Your task to perform on an android device: Go to sound settings Image 0: 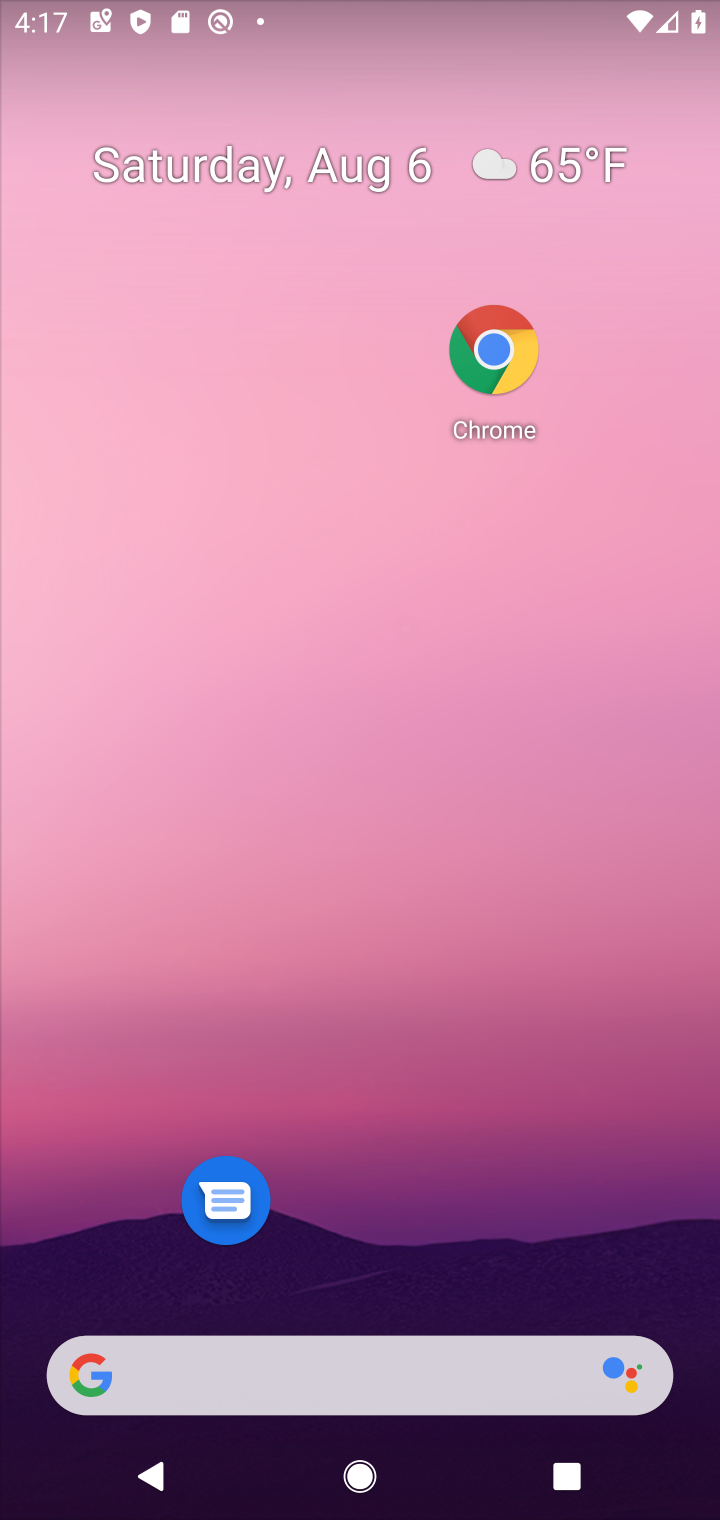
Step 0: drag from (384, 1219) to (381, 248)
Your task to perform on an android device: Go to sound settings Image 1: 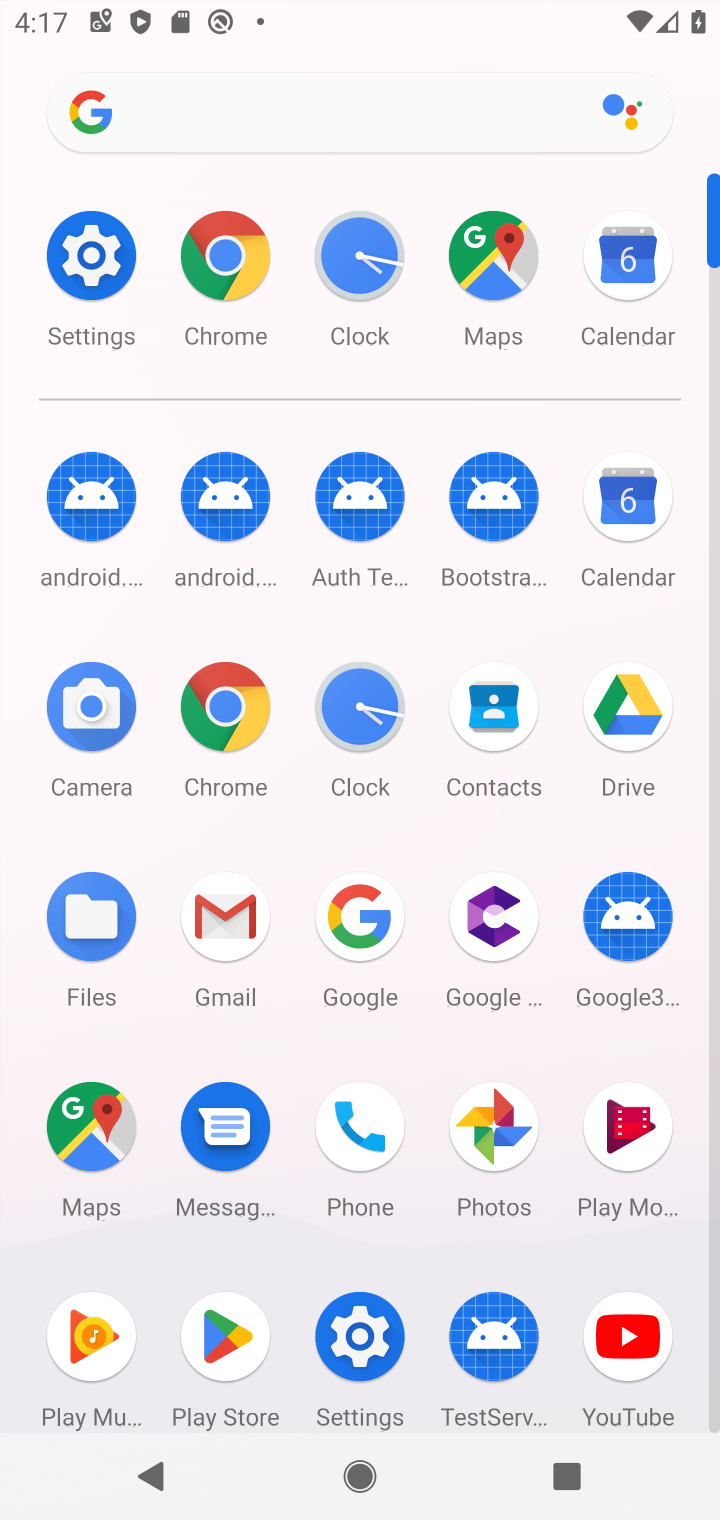
Step 1: click (90, 257)
Your task to perform on an android device: Go to sound settings Image 2: 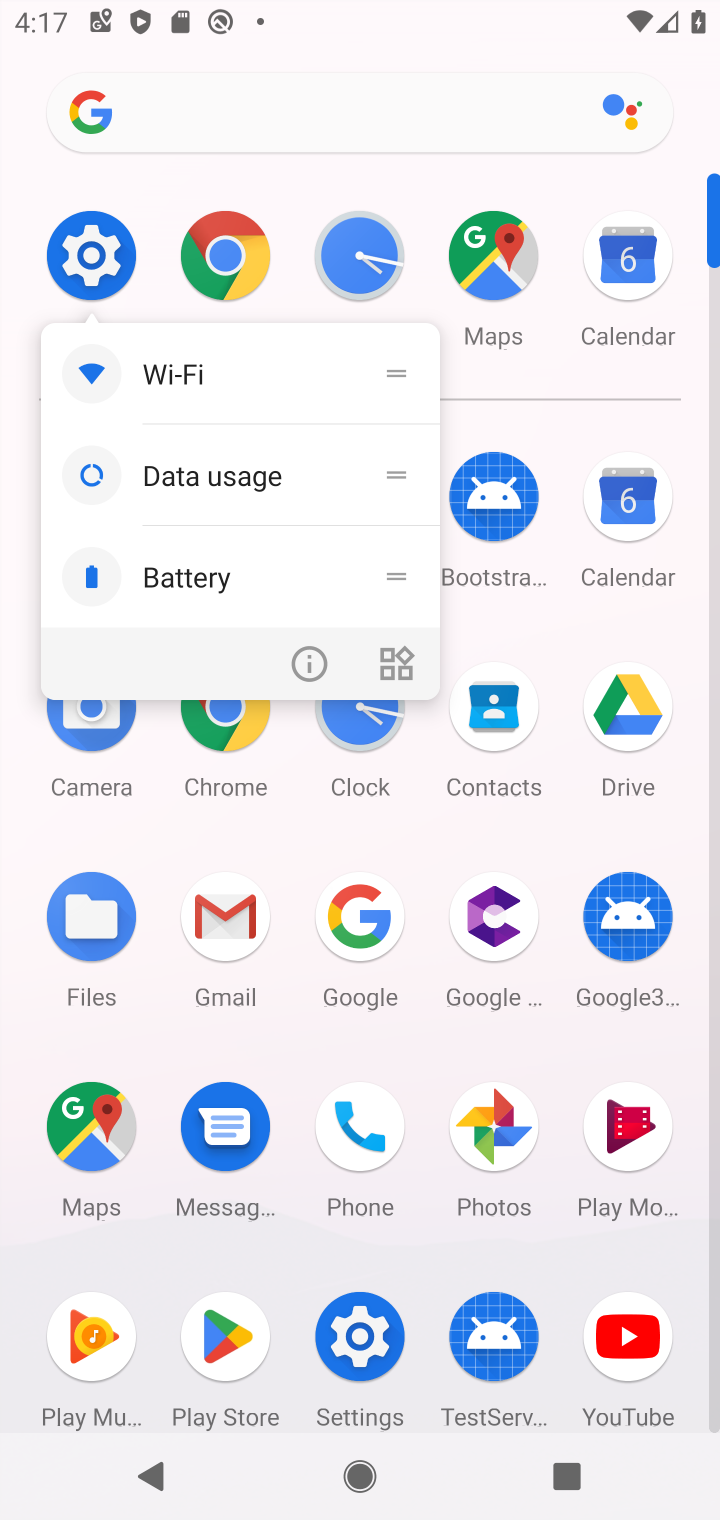
Step 2: click (114, 239)
Your task to perform on an android device: Go to sound settings Image 3: 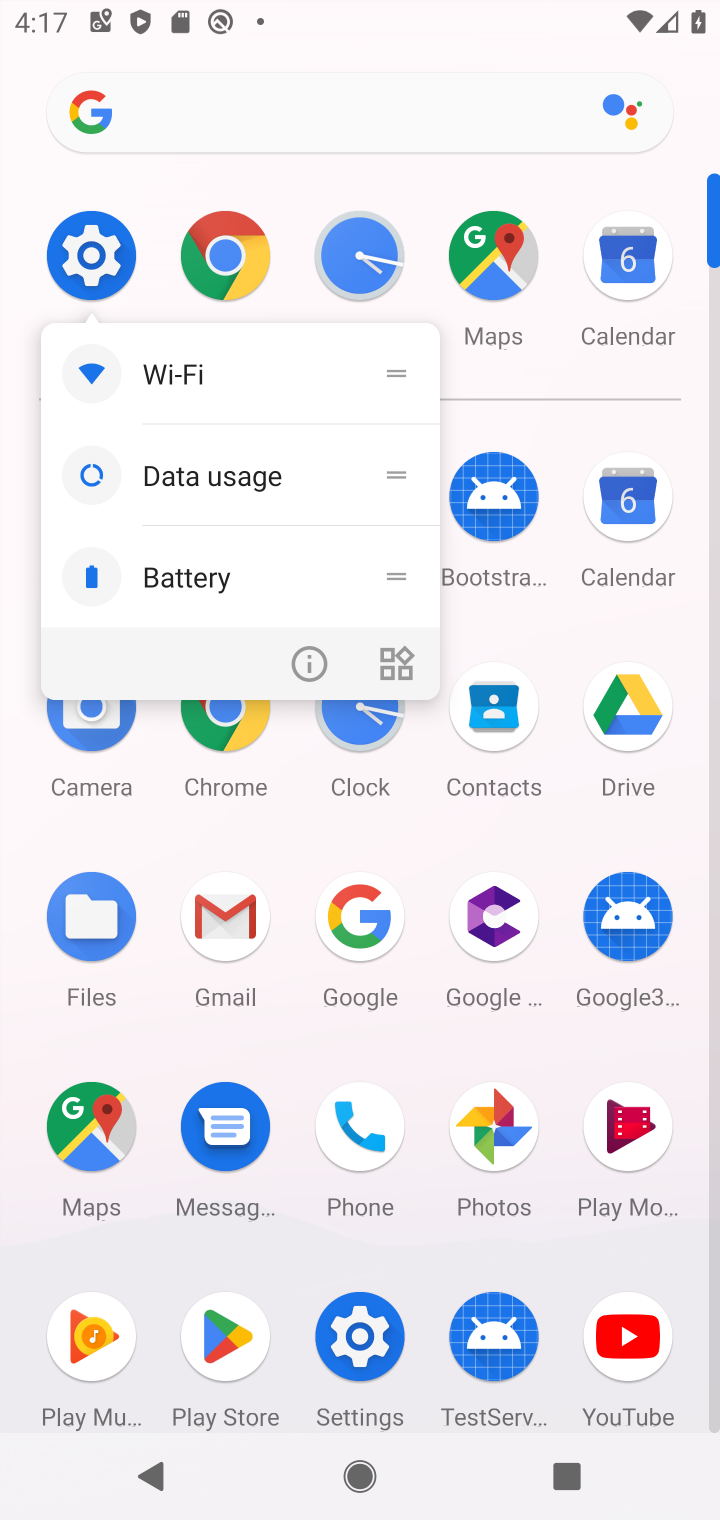
Step 3: click (112, 251)
Your task to perform on an android device: Go to sound settings Image 4: 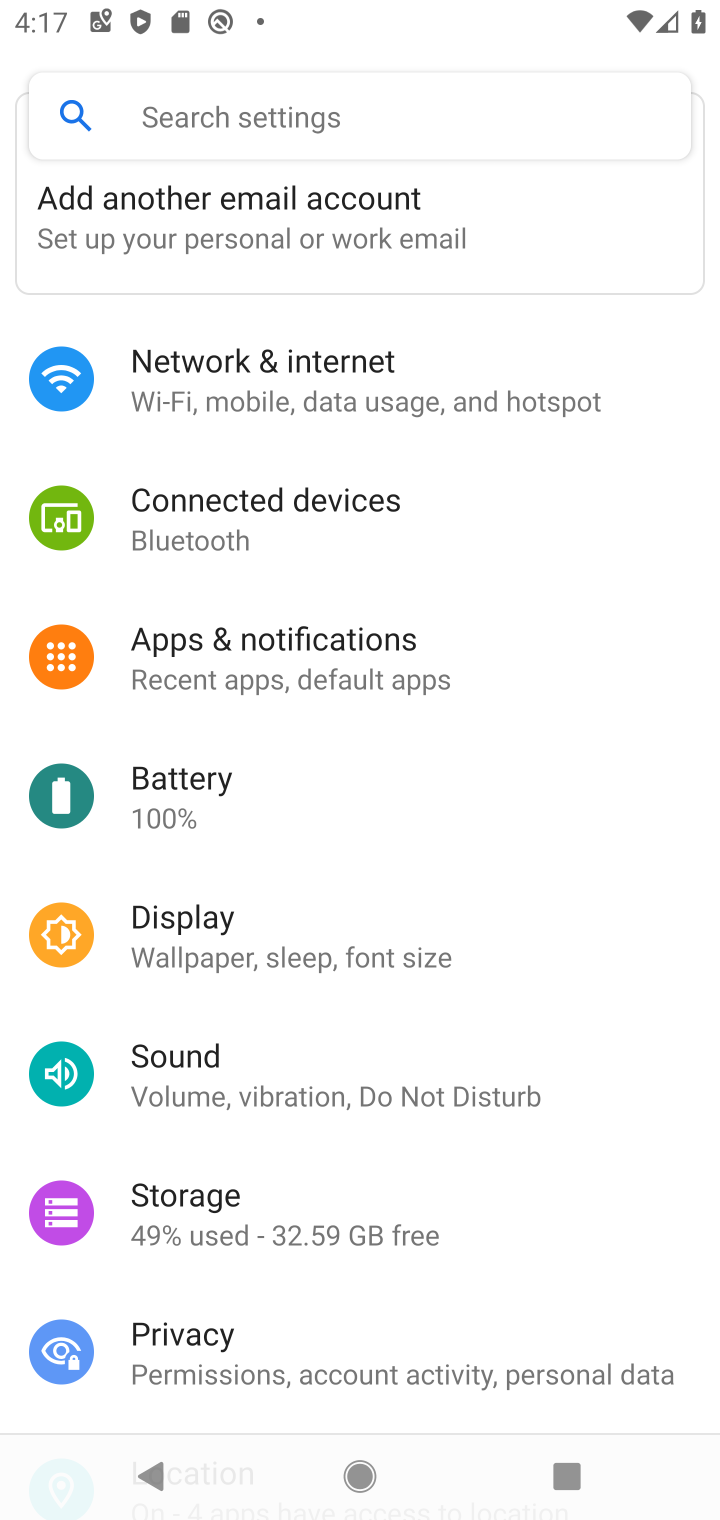
Step 4: click (195, 1086)
Your task to perform on an android device: Go to sound settings Image 5: 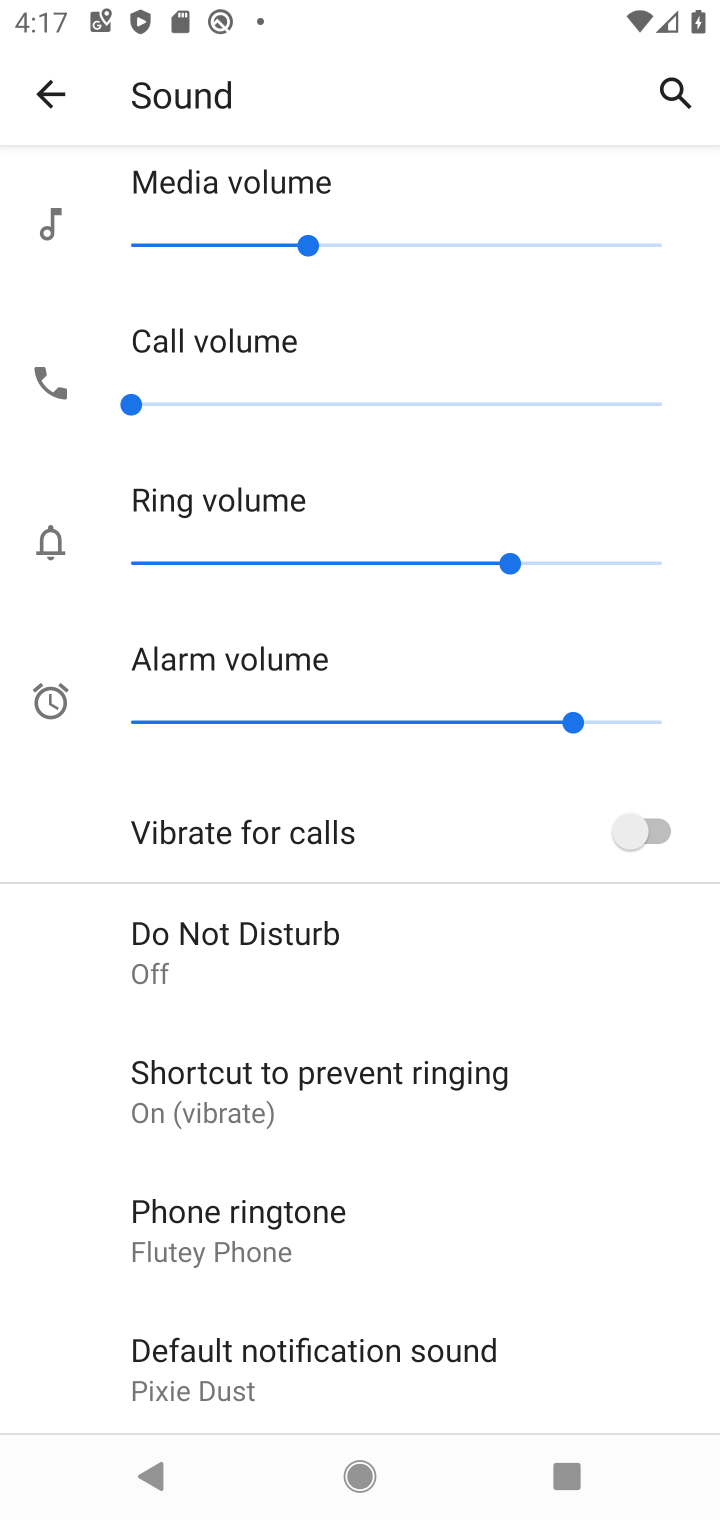
Step 5: task complete